Your task to perform on an android device: Search for vegetarian restaurants on Maps Image 0: 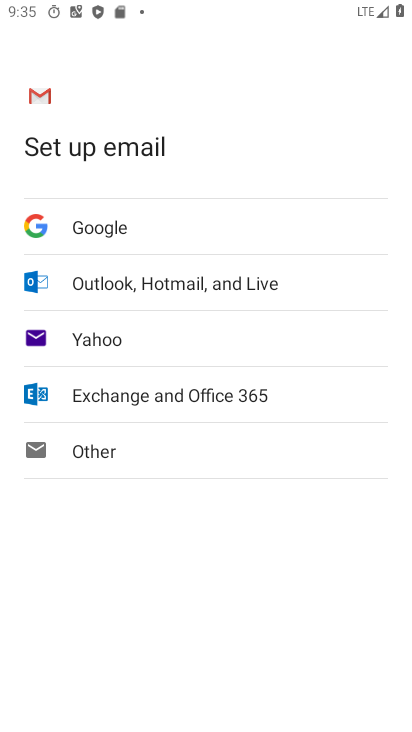
Step 0: press back button
Your task to perform on an android device: Search for vegetarian restaurants on Maps Image 1: 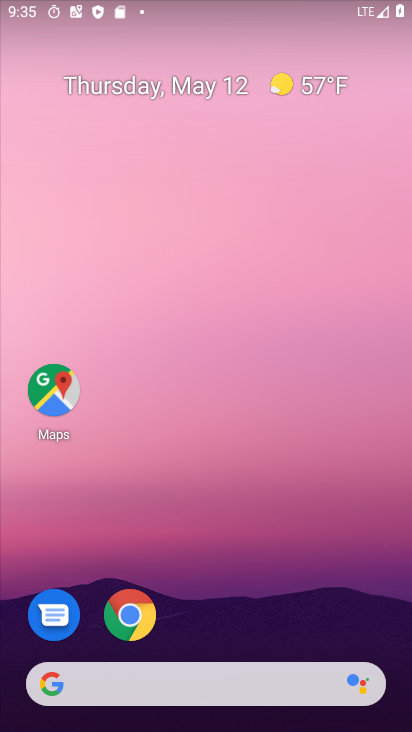
Step 1: drag from (232, 575) to (274, 38)
Your task to perform on an android device: Search for vegetarian restaurants on Maps Image 2: 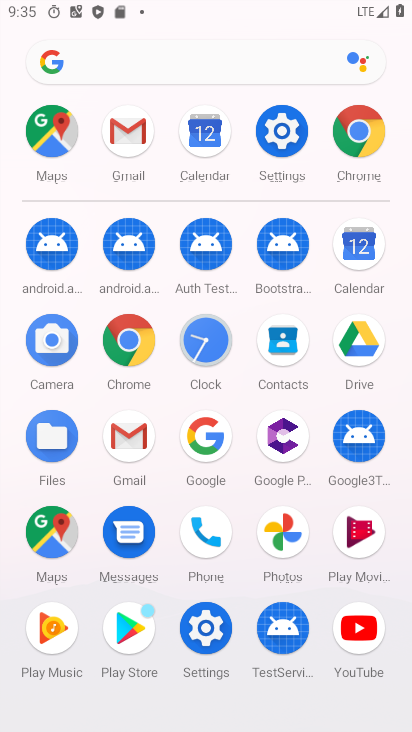
Step 2: drag from (13, 603) to (22, 323)
Your task to perform on an android device: Search for vegetarian restaurants on Maps Image 3: 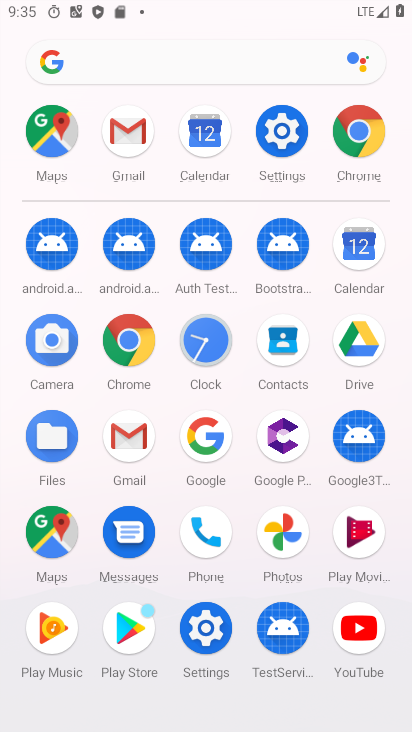
Step 3: click (45, 529)
Your task to perform on an android device: Search for vegetarian restaurants on Maps Image 4: 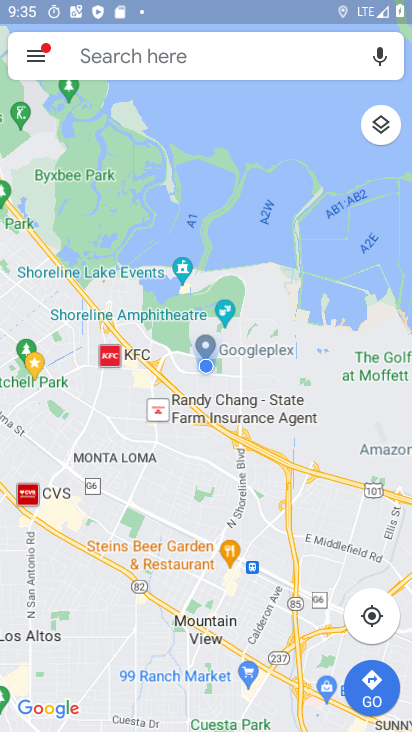
Step 4: click (201, 53)
Your task to perform on an android device: Search for vegetarian restaurants on Maps Image 5: 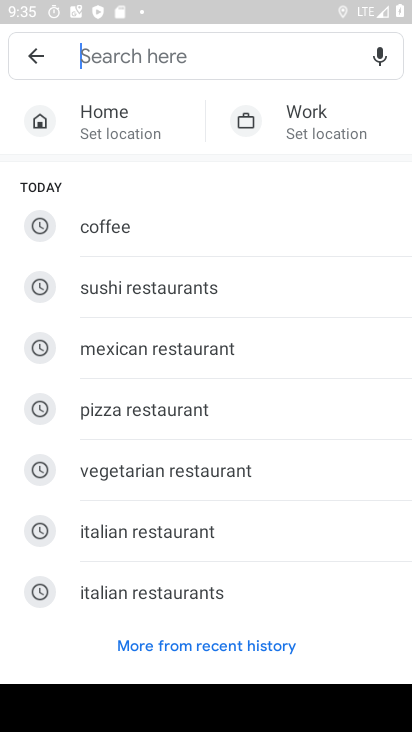
Step 5: click (248, 470)
Your task to perform on an android device: Search for vegetarian restaurants on Maps Image 6: 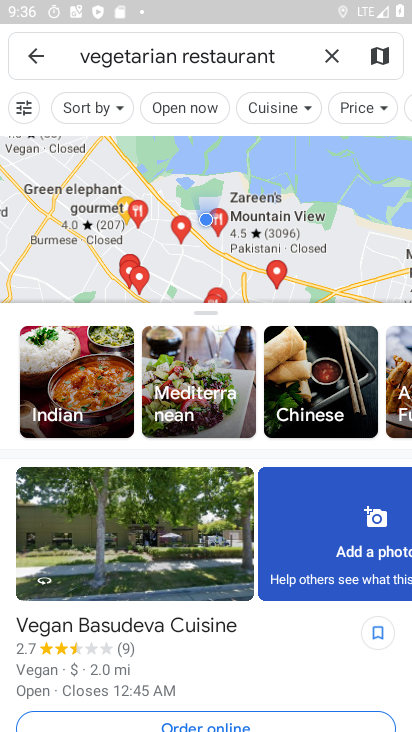
Step 6: task complete